Your task to perform on an android device: Is it going to rain tomorrow? Image 0: 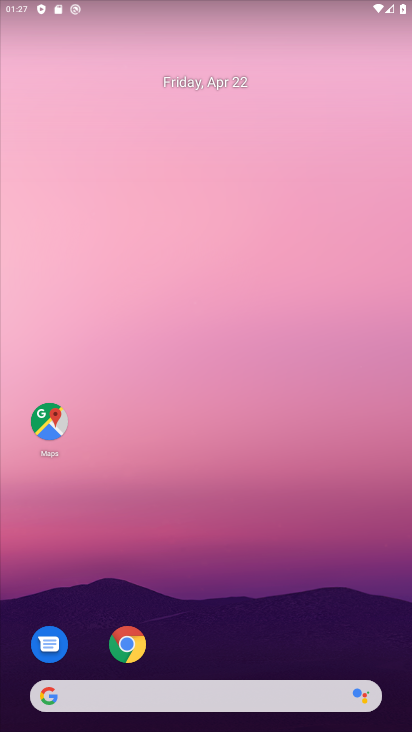
Step 0: drag from (342, 631) to (273, 285)
Your task to perform on an android device: Is it going to rain tomorrow? Image 1: 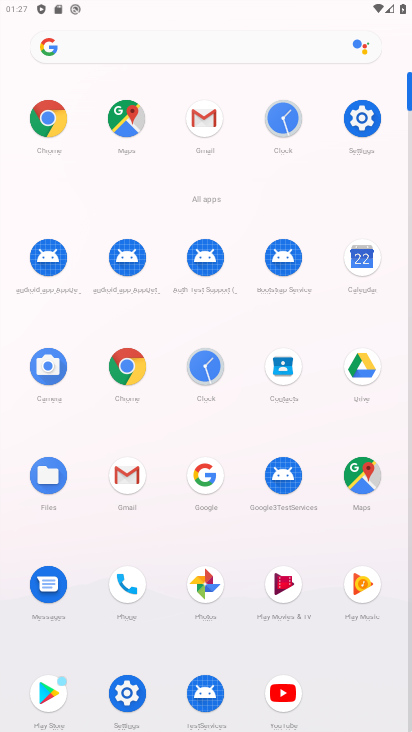
Step 1: click (45, 127)
Your task to perform on an android device: Is it going to rain tomorrow? Image 2: 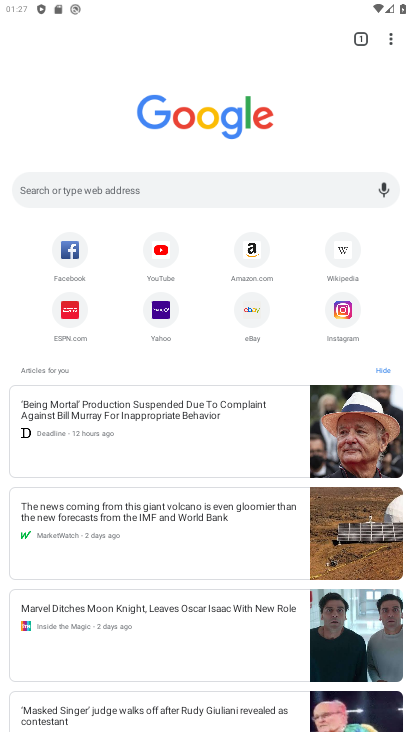
Step 2: click (108, 188)
Your task to perform on an android device: Is it going to rain tomorrow? Image 3: 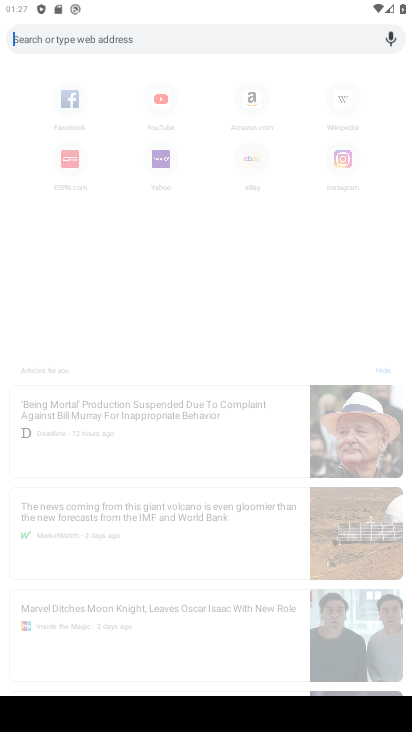
Step 3: type "Is it going to rain tomorrow?"
Your task to perform on an android device: Is it going to rain tomorrow? Image 4: 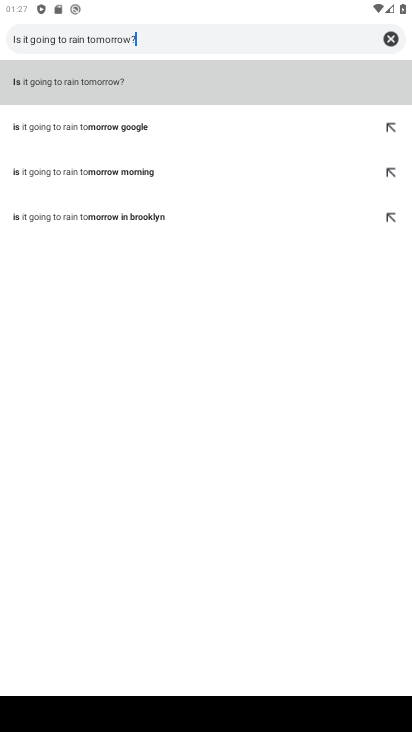
Step 4: press enter
Your task to perform on an android device: Is it going to rain tomorrow? Image 5: 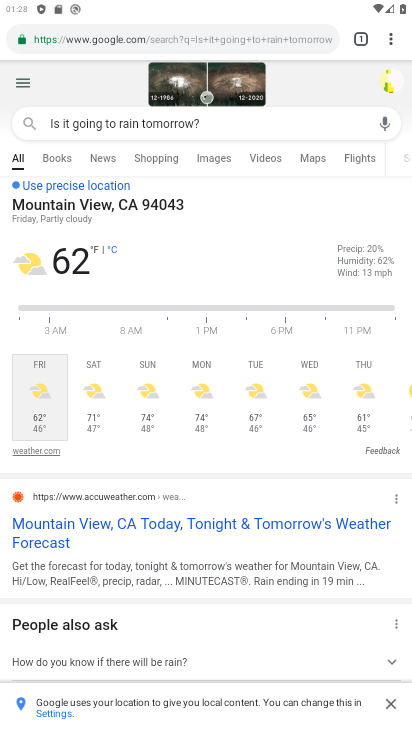
Step 5: task complete